Your task to perform on an android device: Go to settings Image 0: 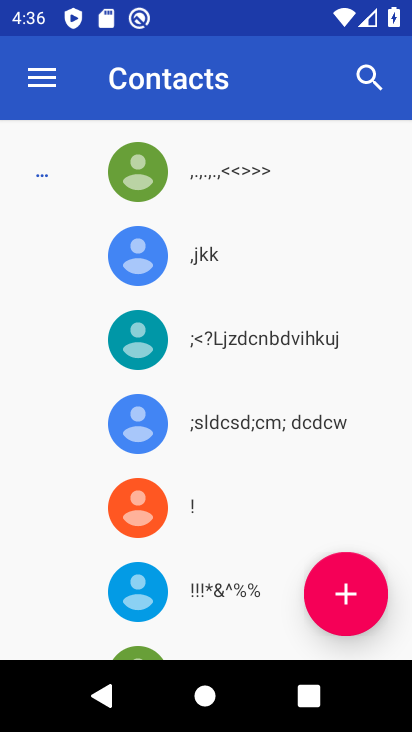
Step 0: press home button
Your task to perform on an android device: Go to settings Image 1: 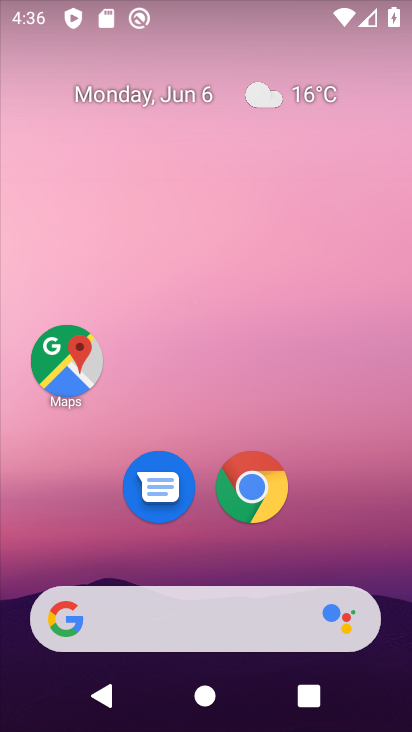
Step 1: drag from (307, 529) to (367, 20)
Your task to perform on an android device: Go to settings Image 2: 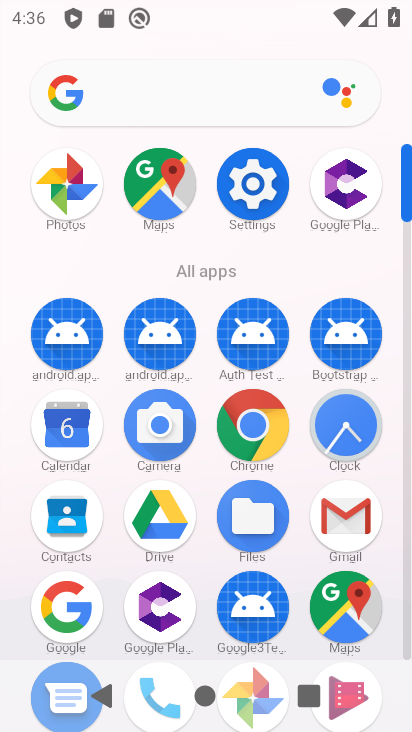
Step 2: click (271, 177)
Your task to perform on an android device: Go to settings Image 3: 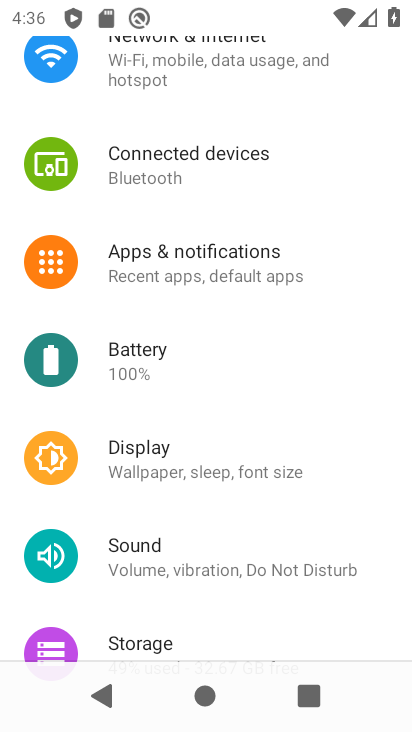
Step 3: task complete